Your task to perform on an android device: toggle improve location accuracy Image 0: 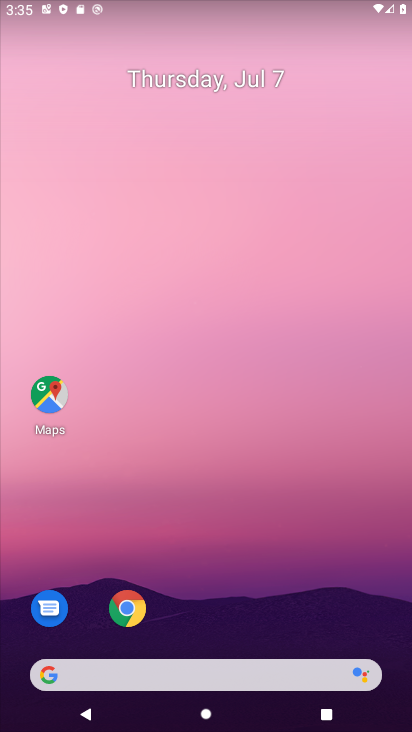
Step 0: drag from (390, 621) to (341, 156)
Your task to perform on an android device: toggle improve location accuracy Image 1: 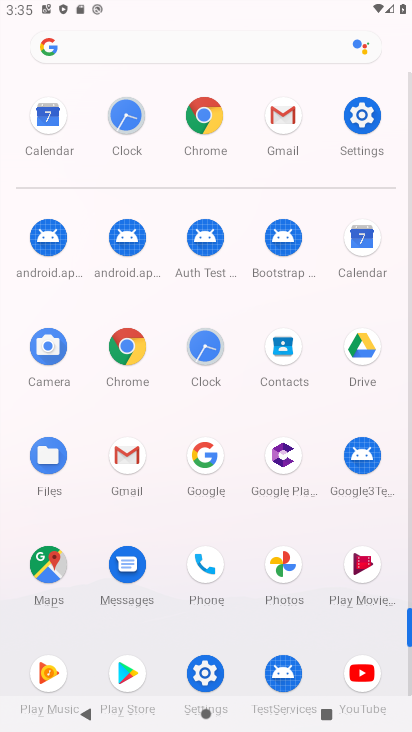
Step 1: click (207, 672)
Your task to perform on an android device: toggle improve location accuracy Image 2: 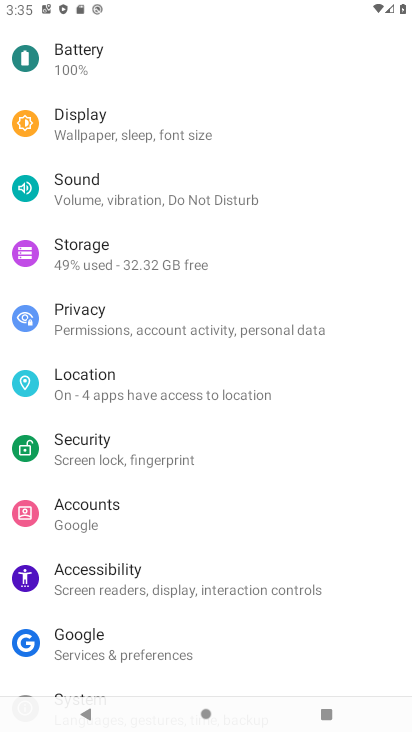
Step 2: click (92, 381)
Your task to perform on an android device: toggle improve location accuracy Image 3: 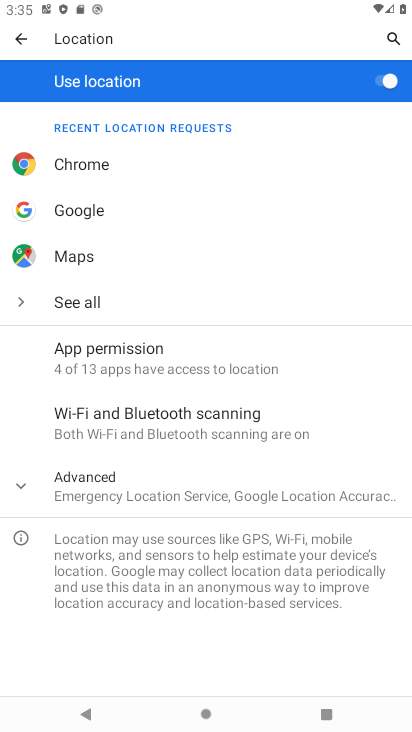
Step 3: click (51, 478)
Your task to perform on an android device: toggle improve location accuracy Image 4: 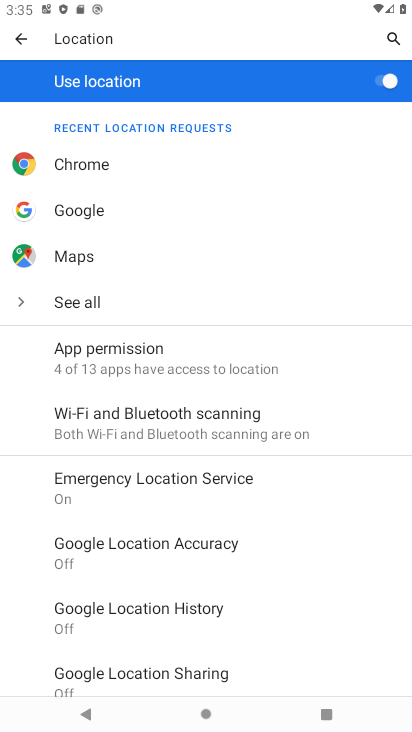
Step 4: click (145, 551)
Your task to perform on an android device: toggle improve location accuracy Image 5: 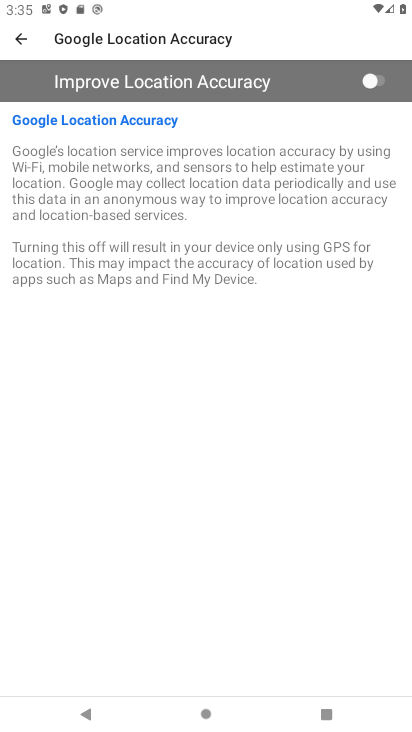
Step 5: click (381, 81)
Your task to perform on an android device: toggle improve location accuracy Image 6: 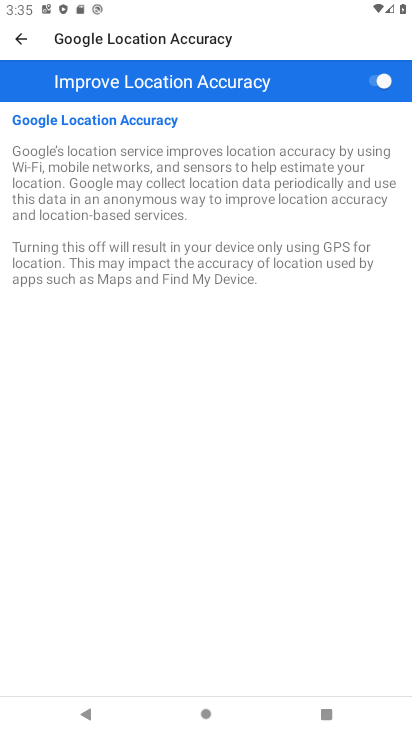
Step 6: task complete